Your task to perform on an android device: Open CNN.com Image 0: 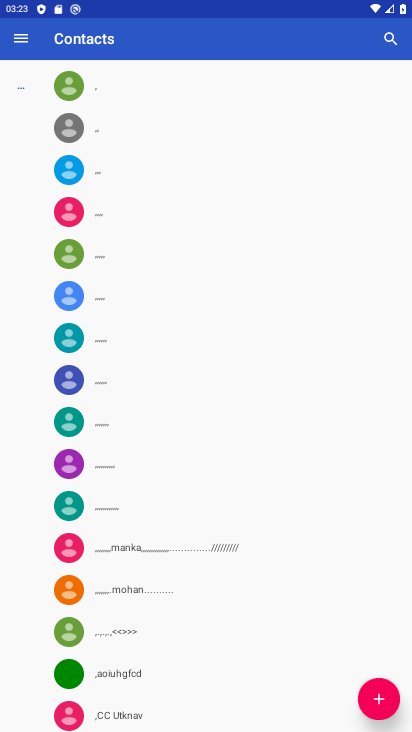
Step 0: press home button
Your task to perform on an android device: Open CNN.com Image 1: 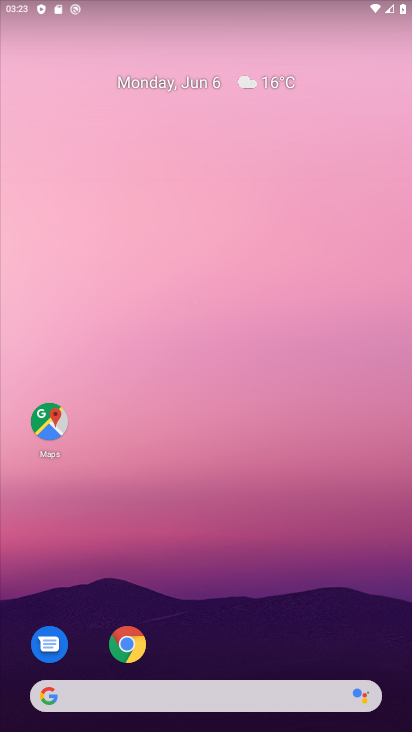
Step 1: click (119, 640)
Your task to perform on an android device: Open CNN.com Image 2: 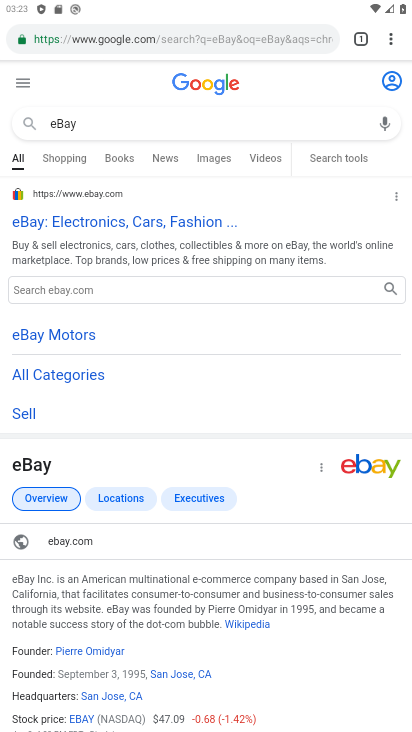
Step 2: click (315, 39)
Your task to perform on an android device: Open CNN.com Image 3: 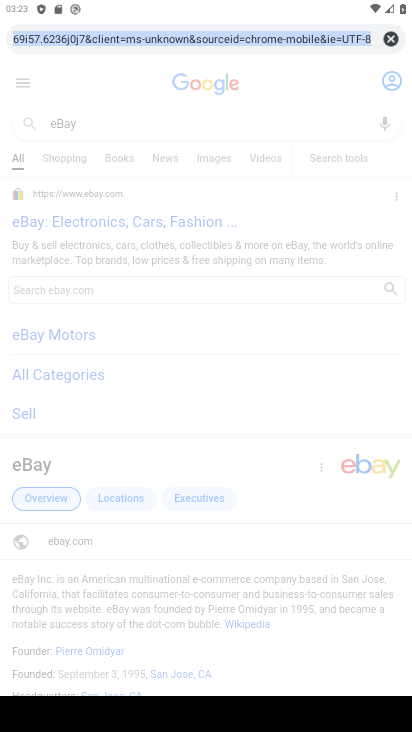
Step 3: click (394, 42)
Your task to perform on an android device: Open CNN.com Image 4: 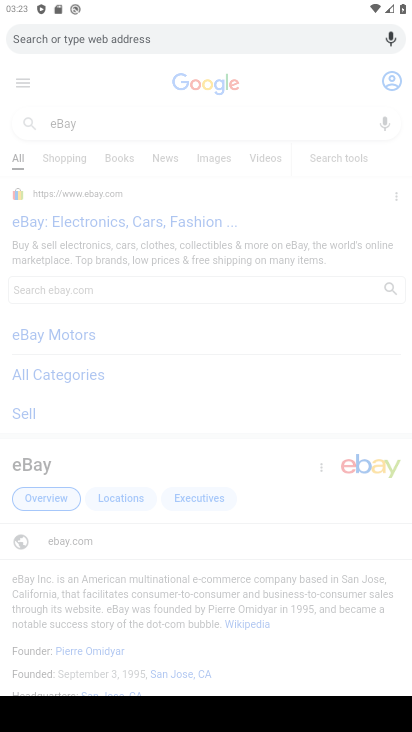
Step 4: type "CNN.com"
Your task to perform on an android device: Open CNN.com Image 5: 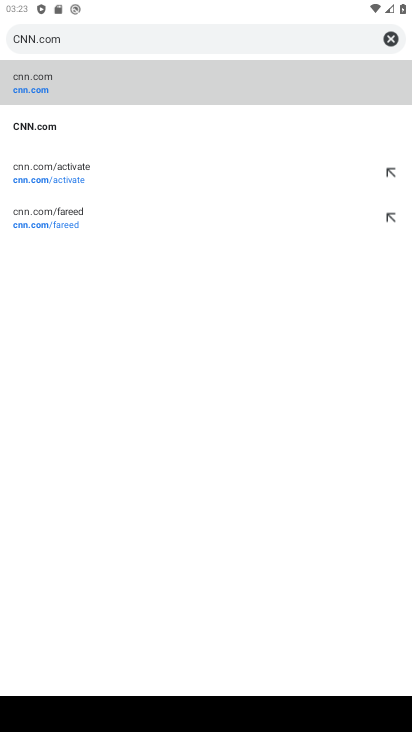
Step 5: click (23, 120)
Your task to perform on an android device: Open CNN.com Image 6: 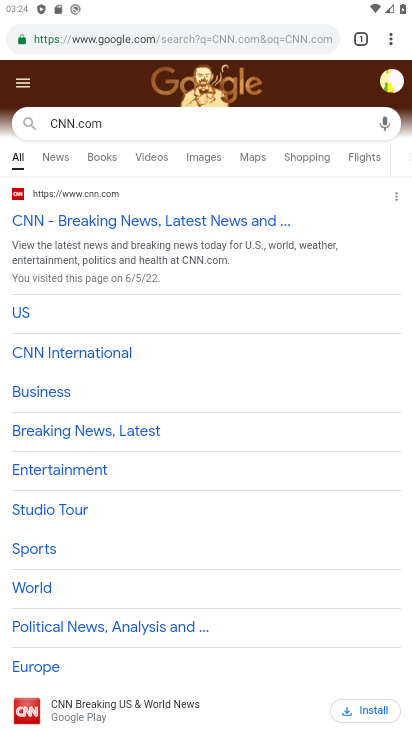
Step 6: task complete